Your task to perform on an android device: change notification settings in the gmail app Image 0: 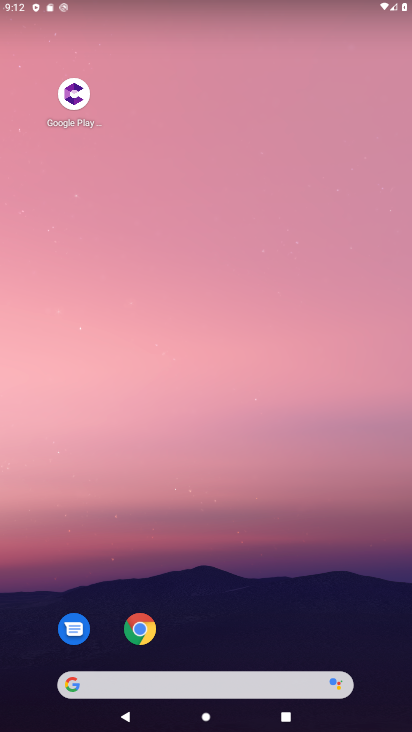
Step 0: drag from (345, 610) to (333, 303)
Your task to perform on an android device: change notification settings in the gmail app Image 1: 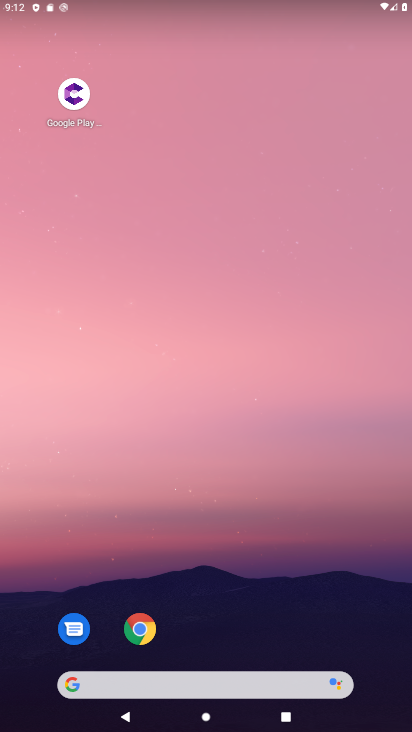
Step 1: drag from (249, 654) to (242, 9)
Your task to perform on an android device: change notification settings in the gmail app Image 2: 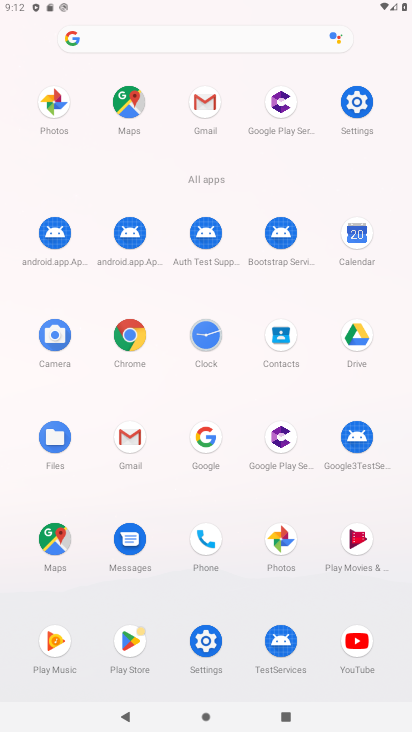
Step 2: click (196, 99)
Your task to perform on an android device: change notification settings in the gmail app Image 3: 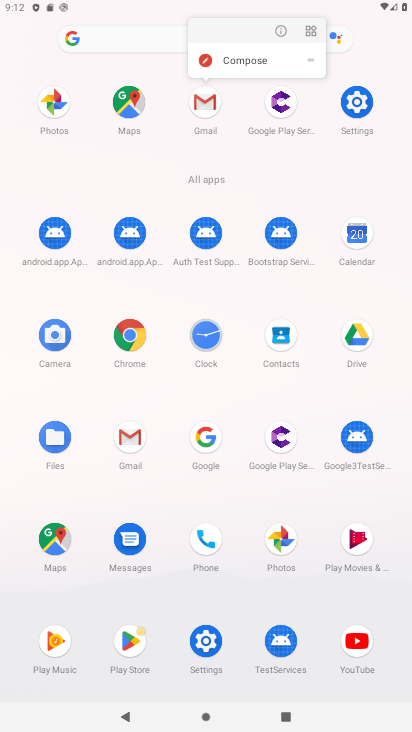
Step 3: click (277, 36)
Your task to perform on an android device: change notification settings in the gmail app Image 4: 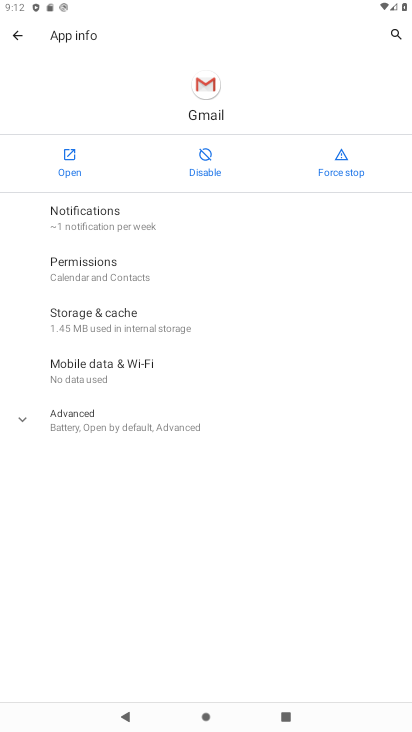
Step 4: click (126, 215)
Your task to perform on an android device: change notification settings in the gmail app Image 5: 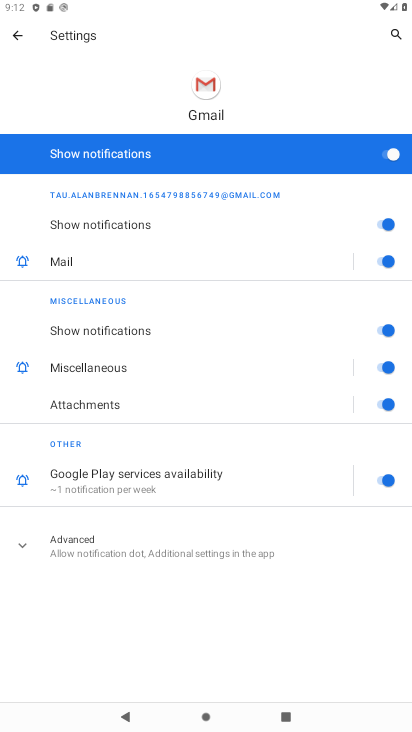
Step 5: click (220, 146)
Your task to perform on an android device: change notification settings in the gmail app Image 6: 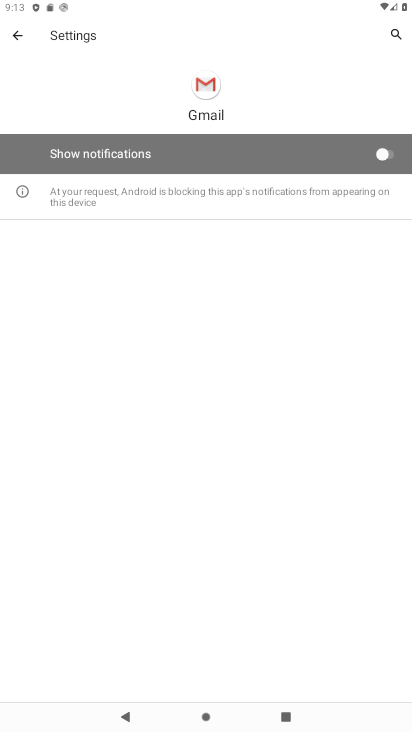
Step 6: task complete